Your task to perform on an android device: see creations saved in the google photos Image 0: 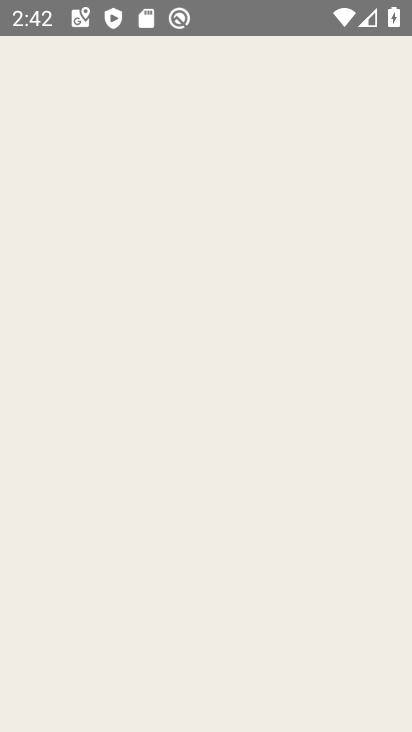
Step 0: press home button
Your task to perform on an android device: see creations saved in the google photos Image 1: 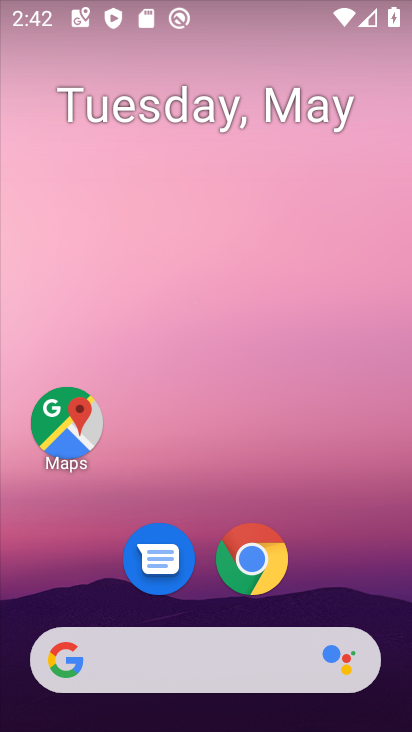
Step 1: drag from (181, 669) to (352, 58)
Your task to perform on an android device: see creations saved in the google photos Image 2: 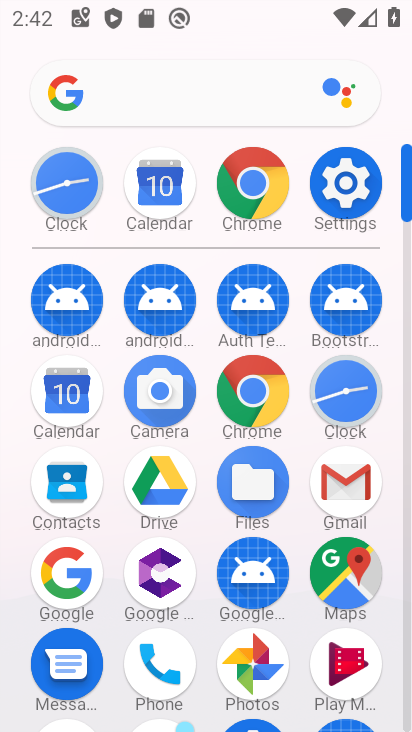
Step 2: click (250, 679)
Your task to perform on an android device: see creations saved in the google photos Image 3: 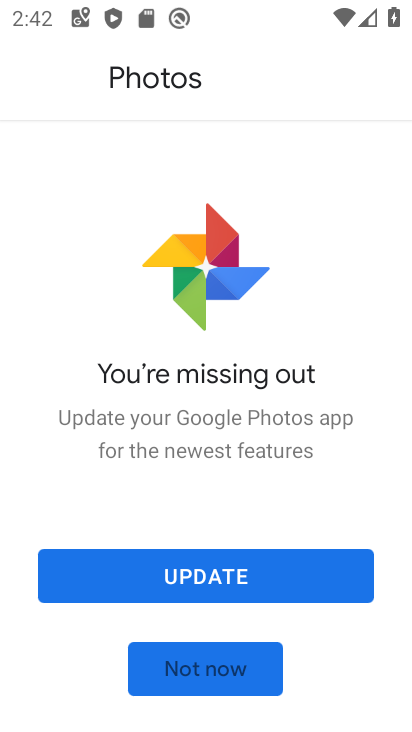
Step 3: click (195, 676)
Your task to perform on an android device: see creations saved in the google photos Image 4: 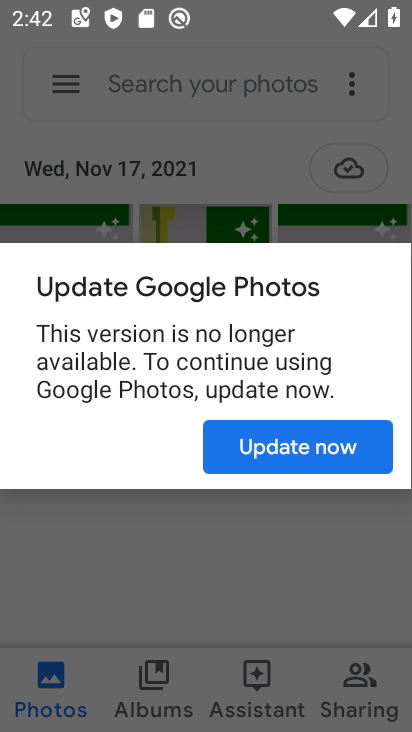
Step 4: click (338, 449)
Your task to perform on an android device: see creations saved in the google photos Image 5: 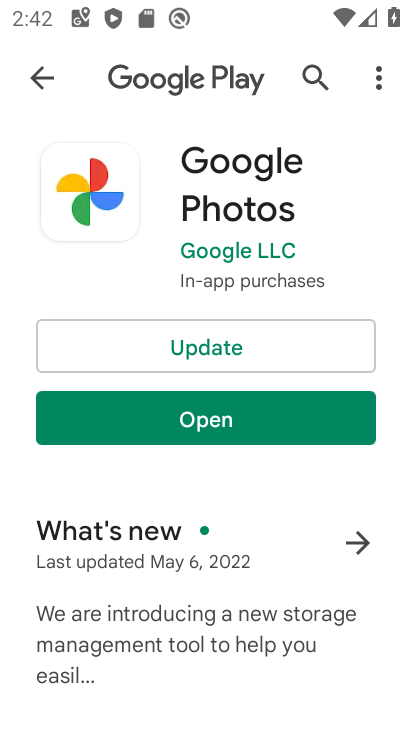
Step 5: click (249, 422)
Your task to perform on an android device: see creations saved in the google photos Image 6: 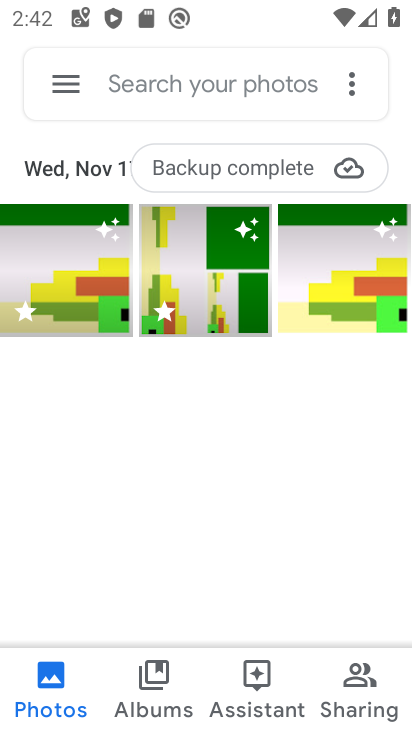
Step 6: click (153, 684)
Your task to perform on an android device: see creations saved in the google photos Image 7: 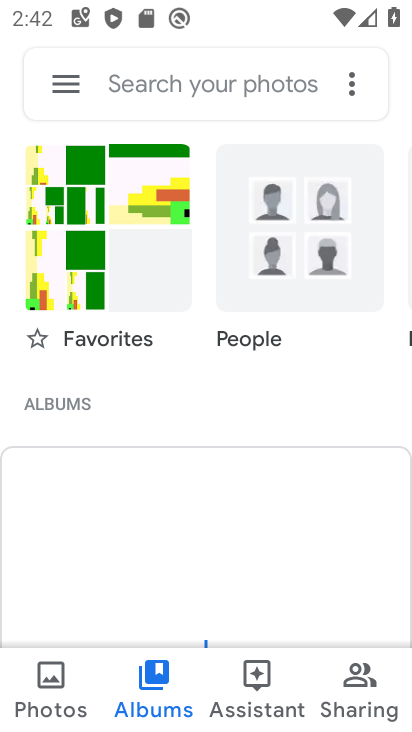
Step 7: click (219, 84)
Your task to perform on an android device: see creations saved in the google photos Image 8: 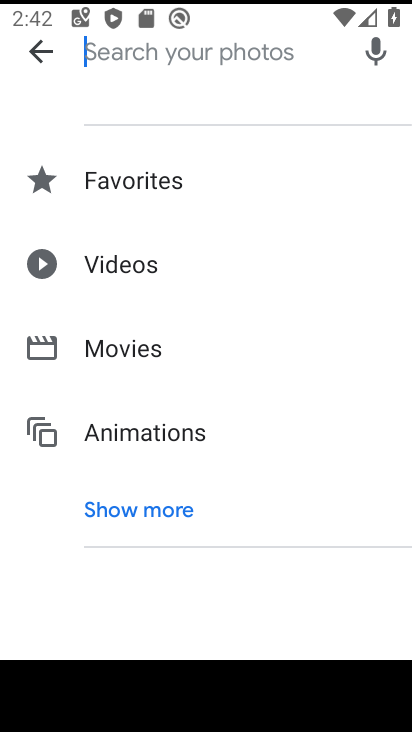
Step 8: click (117, 509)
Your task to perform on an android device: see creations saved in the google photos Image 9: 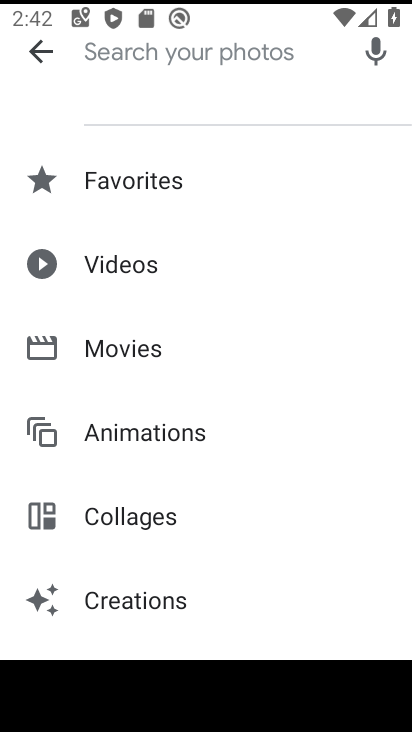
Step 9: click (117, 601)
Your task to perform on an android device: see creations saved in the google photos Image 10: 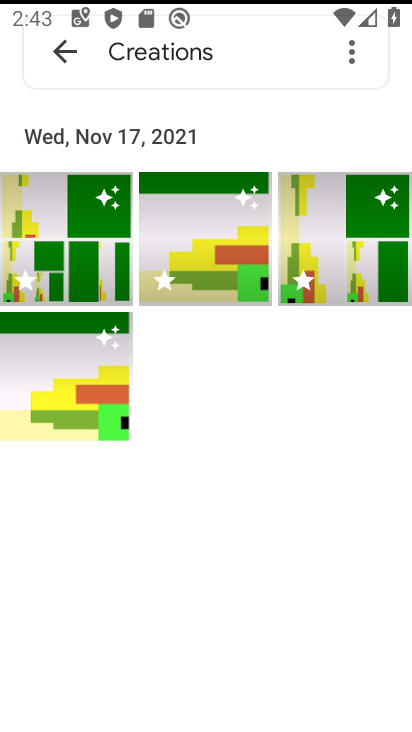
Step 10: task complete